Your task to perform on an android device: turn off smart reply in the gmail app Image 0: 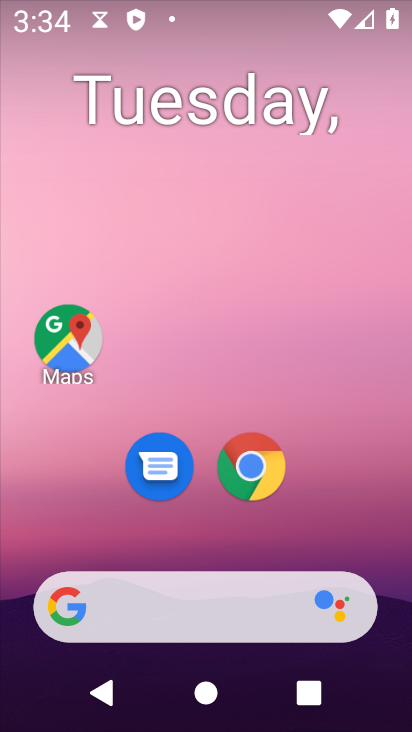
Step 0: drag from (381, 520) to (238, 51)
Your task to perform on an android device: turn off smart reply in the gmail app Image 1: 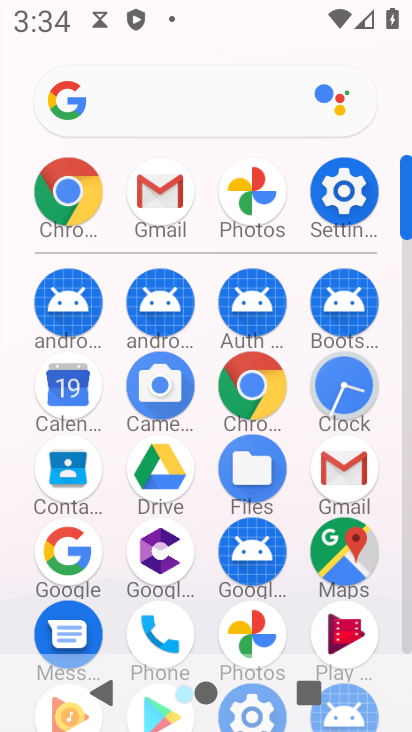
Step 1: click (153, 186)
Your task to perform on an android device: turn off smart reply in the gmail app Image 2: 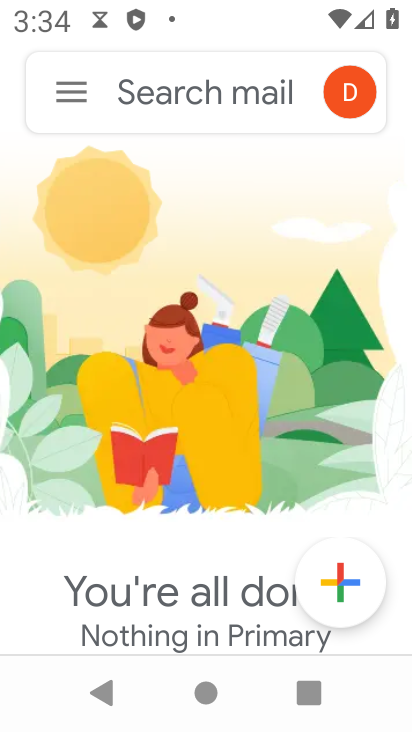
Step 2: click (53, 98)
Your task to perform on an android device: turn off smart reply in the gmail app Image 3: 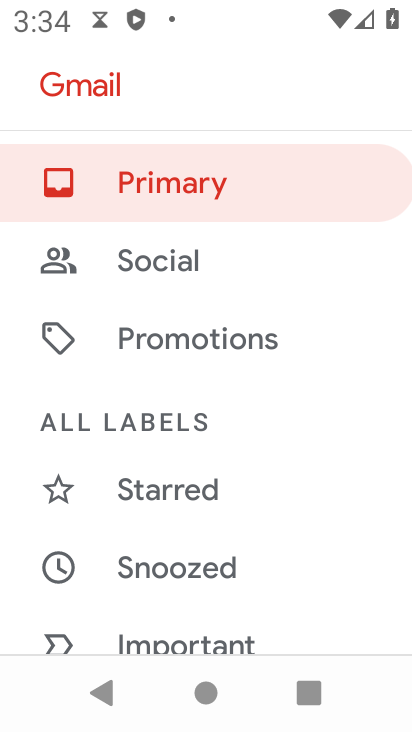
Step 3: drag from (265, 549) to (253, 129)
Your task to perform on an android device: turn off smart reply in the gmail app Image 4: 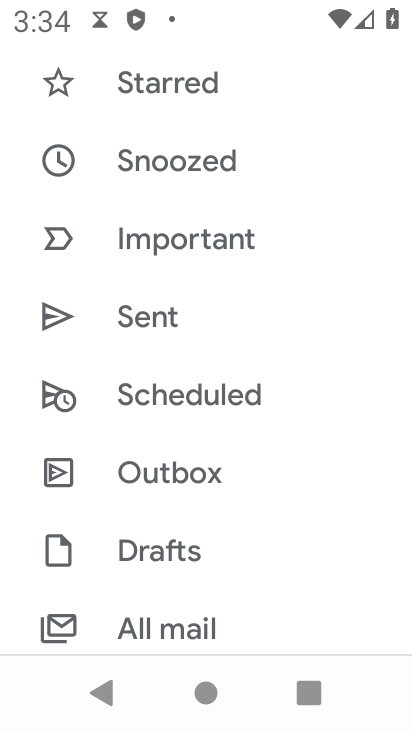
Step 4: drag from (268, 602) to (262, 131)
Your task to perform on an android device: turn off smart reply in the gmail app Image 5: 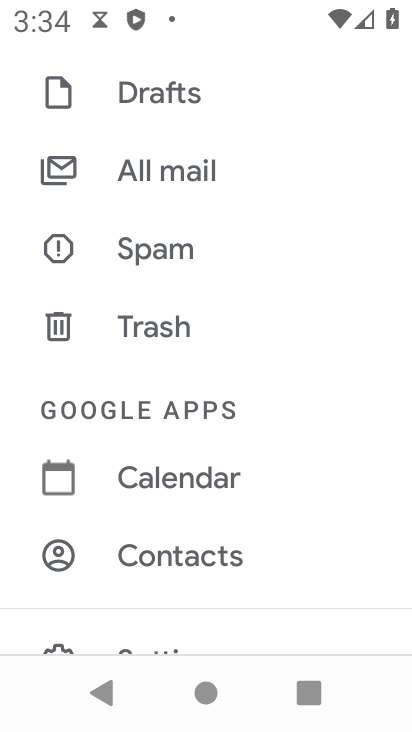
Step 5: drag from (255, 498) to (249, 73)
Your task to perform on an android device: turn off smart reply in the gmail app Image 6: 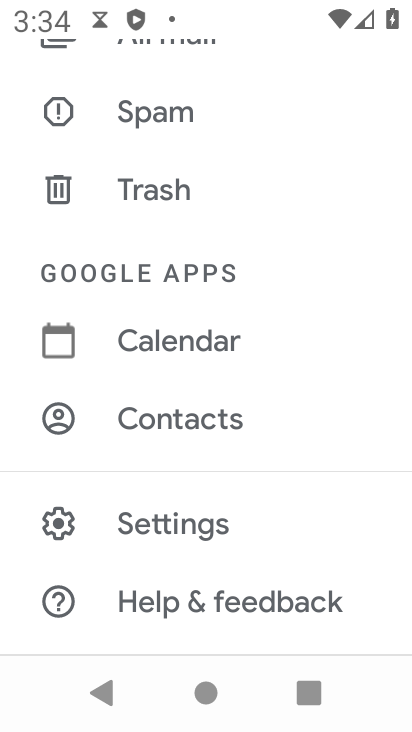
Step 6: click (199, 522)
Your task to perform on an android device: turn off smart reply in the gmail app Image 7: 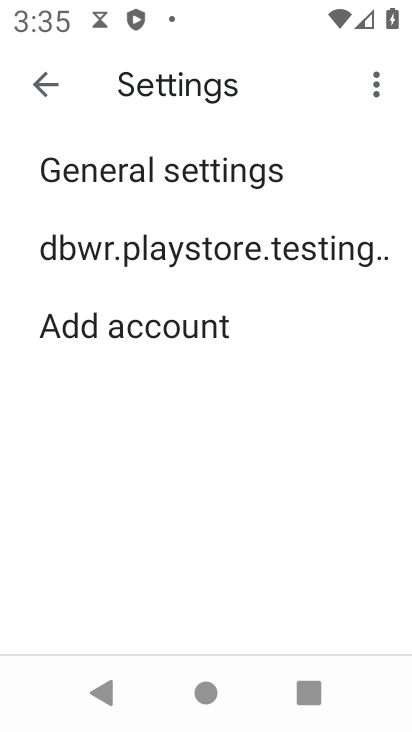
Step 7: click (189, 250)
Your task to perform on an android device: turn off smart reply in the gmail app Image 8: 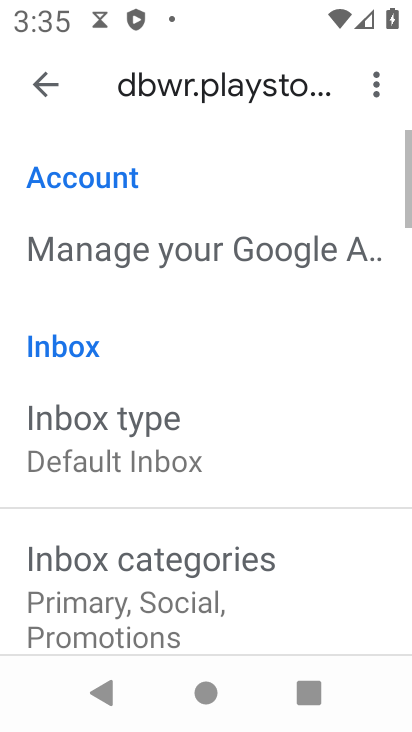
Step 8: drag from (207, 501) to (196, 98)
Your task to perform on an android device: turn off smart reply in the gmail app Image 9: 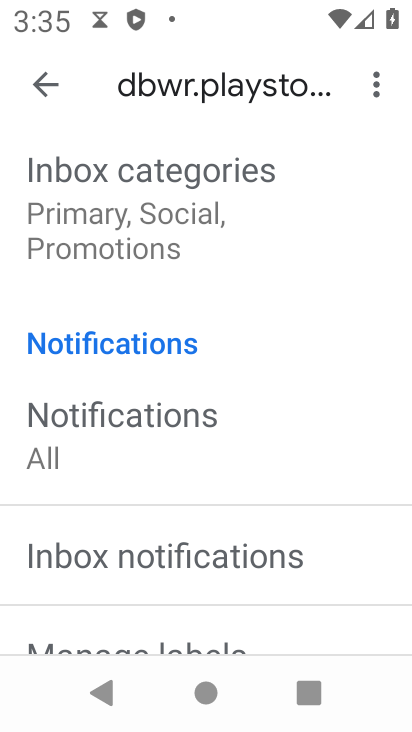
Step 9: drag from (180, 433) to (171, 124)
Your task to perform on an android device: turn off smart reply in the gmail app Image 10: 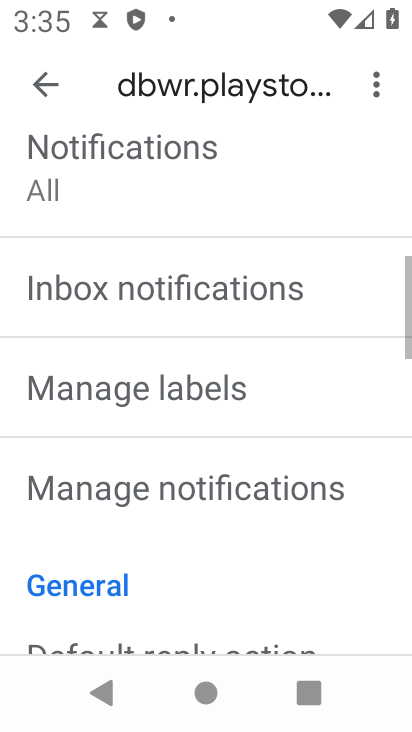
Step 10: drag from (203, 326) to (205, 142)
Your task to perform on an android device: turn off smart reply in the gmail app Image 11: 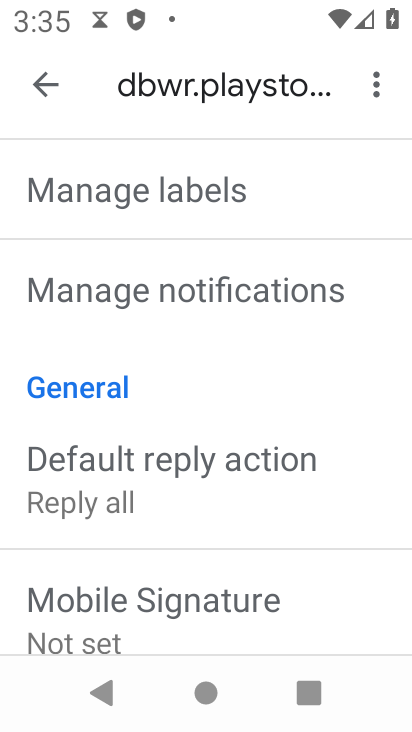
Step 11: drag from (220, 534) to (230, 113)
Your task to perform on an android device: turn off smart reply in the gmail app Image 12: 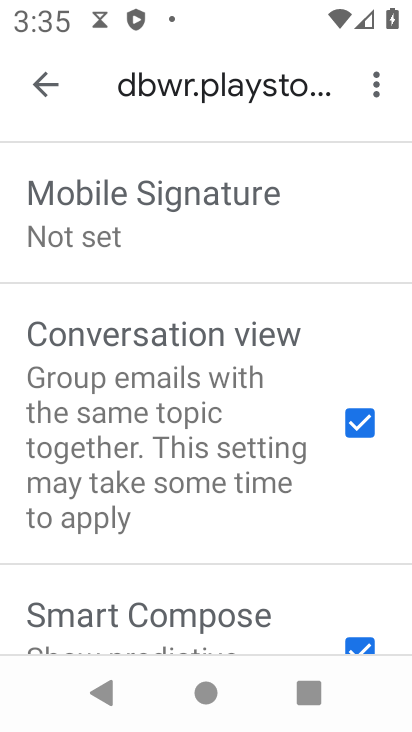
Step 12: drag from (205, 565) to (208, 209)
Your task to perform on an android device: turn off smart reply in the gmail app Image 13: 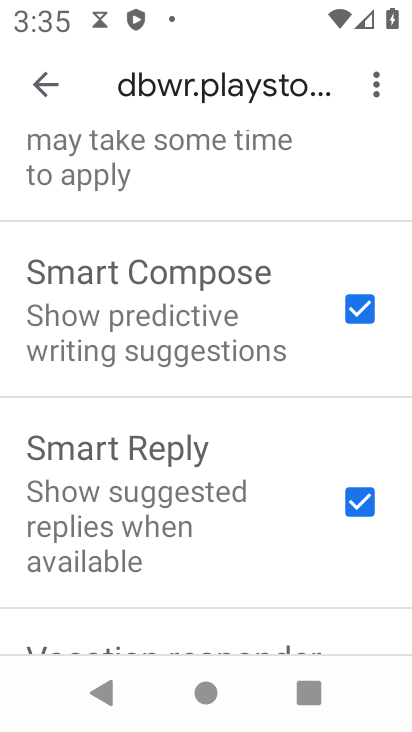
Step 13: click (352, 506)
Your task to perform on an android device: turn off smart reply in the gmail app Image 14: 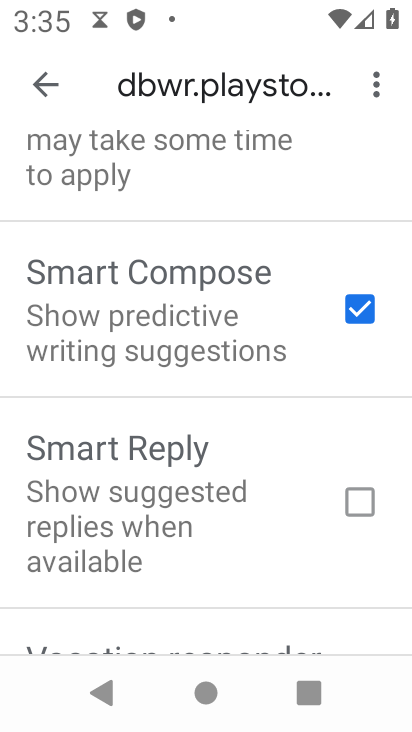
Step 14: task complete